Your task to perform on an android device: open a new tab in the chrome app Image 0: 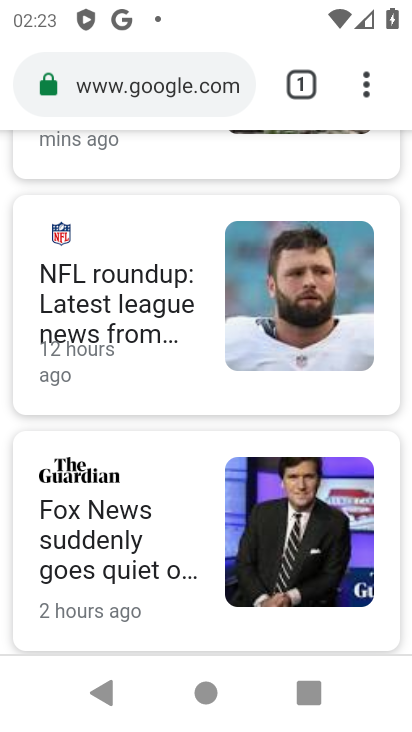
Step 0: drag from (375, 76) to (204, 169)
Your task to perform on an android device: open a new tab in the chrome app Image 1: 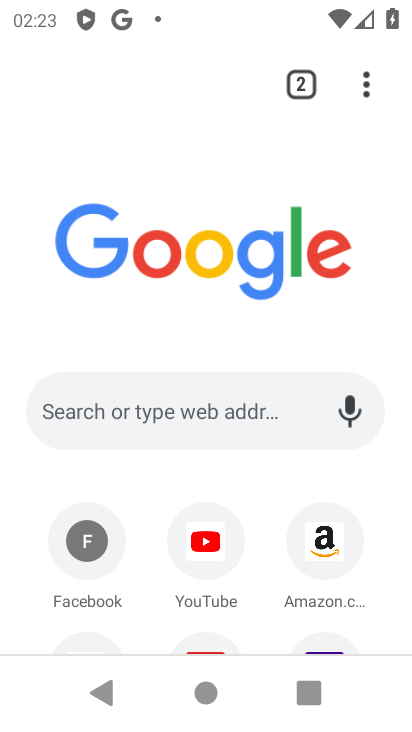
Step 1: task complete